Your task to perform on an android device: check storage Image 0: 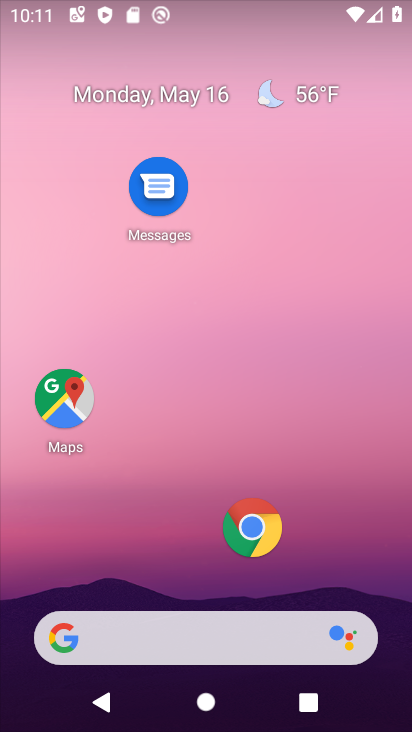
Step 0: drag from (189, 553) to (177, 107)
Your task to perform on an android device: check storage Image 1: 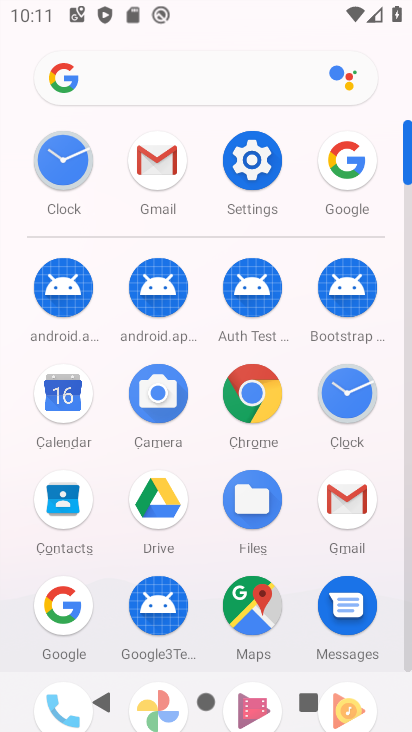
Step 1: click (255, 169)
Your task to perform on an android device: check storage Image 2: 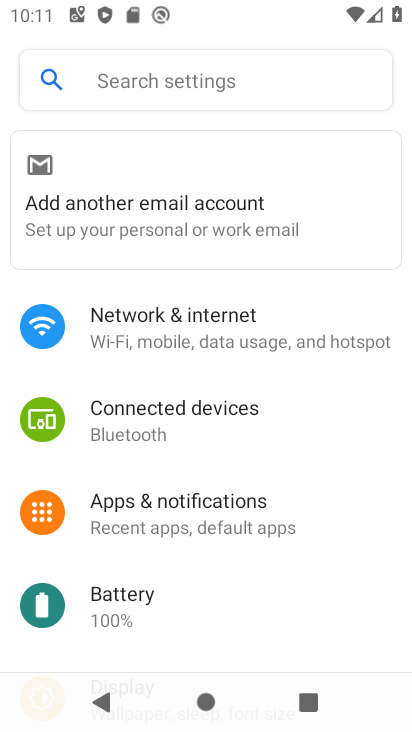
Step 2: drag from (269, 559) to (285, 102)
Your task to perform on an android device: check storage Image 3: 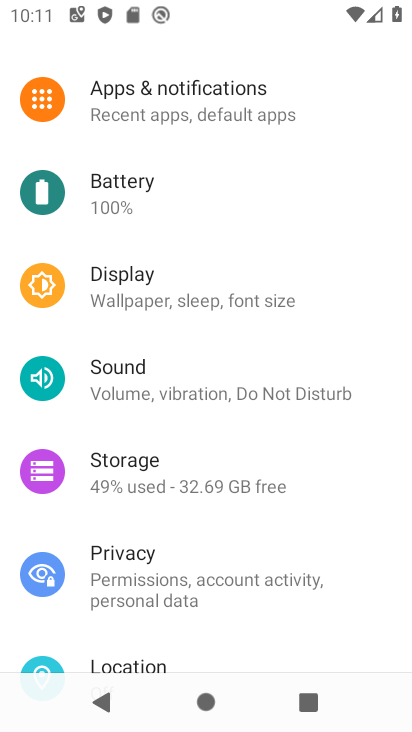
Step 3: click (177, 473)
Your task to perform on an android device: check storage Image 4: 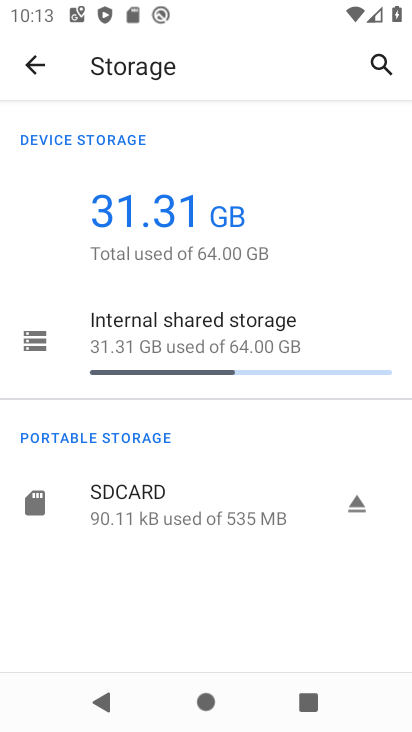
Step 4: task complete